Your task to perform on an android device: Open my contact list Image 0: 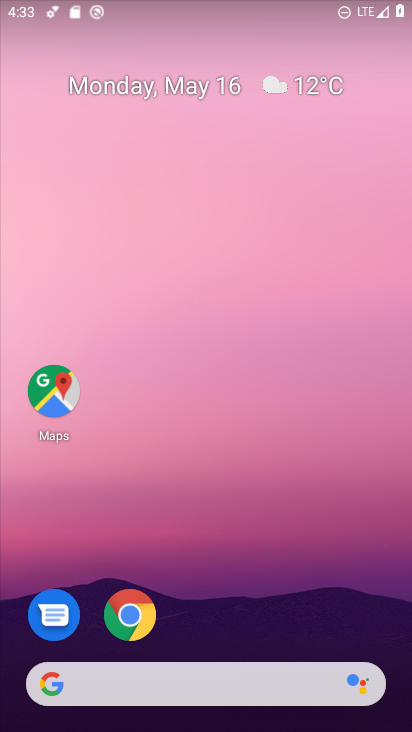
Step 0: drag from (222, 724) to (224, 228)
Your task to perform on an android device: Open my contact list Image 1: 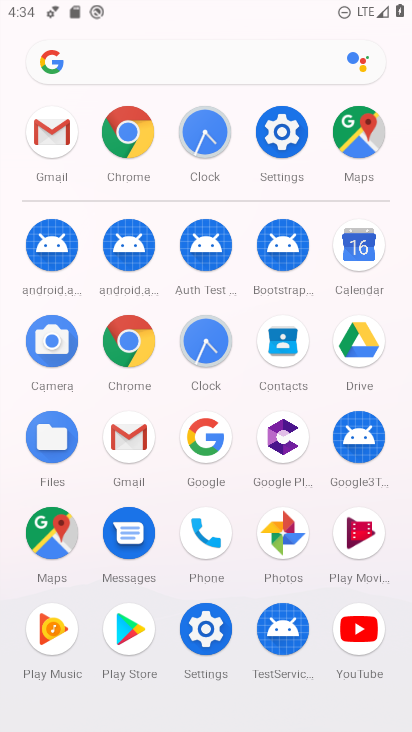
Step 1: click (291, 349)
Your task to perform on an android device: Open my contact list Image 2: 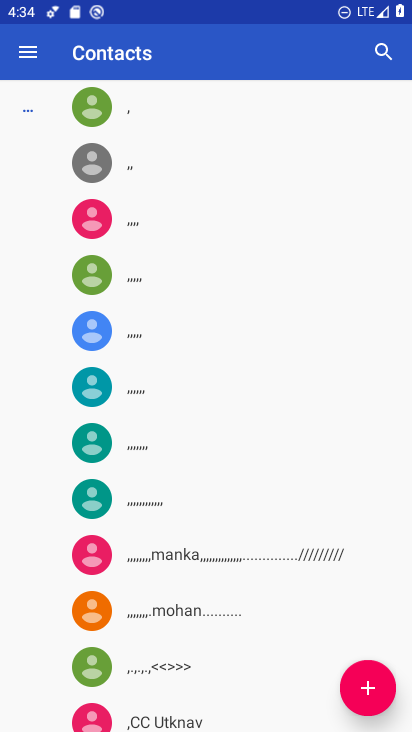
Step 2: task complete